Your task to perform on an android device: Go to Yahoo.com Image 0: 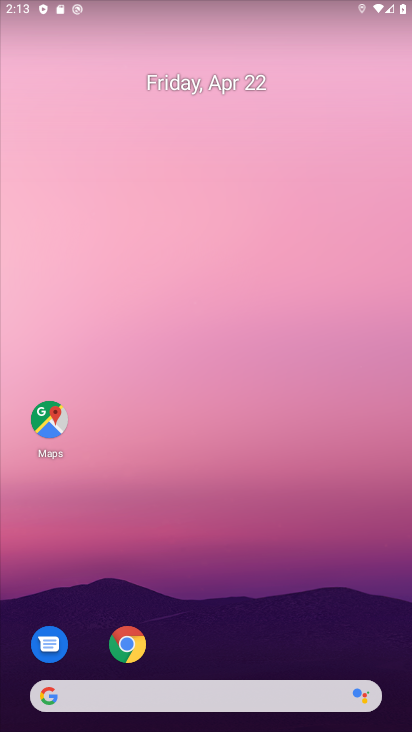
Step 0: drag from (267, 617) to (219, 146)
Your task to perform on an android device: Go to Yahoo.com Image 1: 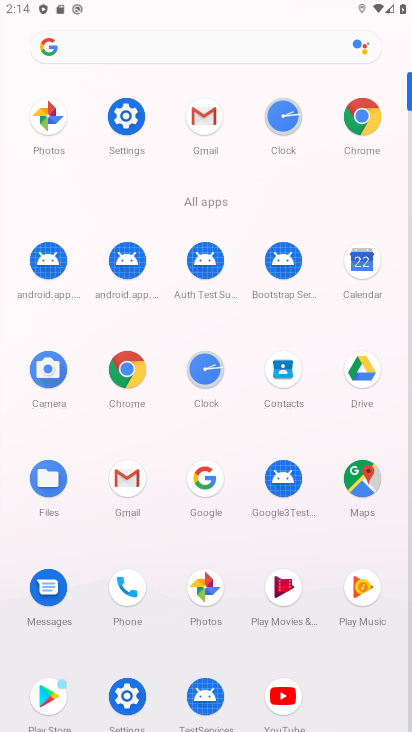
Step 1: click (363, 143)
Your task to perform on an android device: Go to Yahoo.com Image 2: 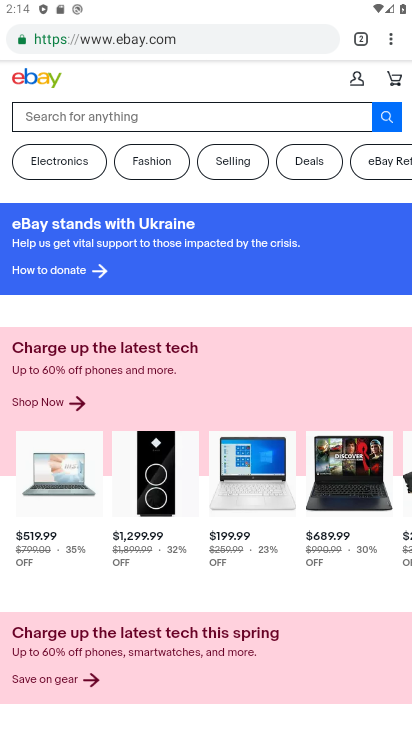
Step 2: click (364, 39)
Your task to perform on an android device: Go to Yahoo.com Image 3: 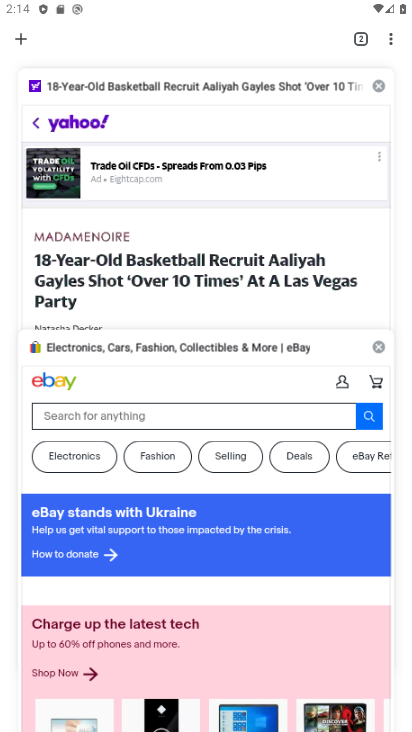
Step 3: click (23, 42)
Your task to perform on an android device: Go to Yahoo.com Image 4: 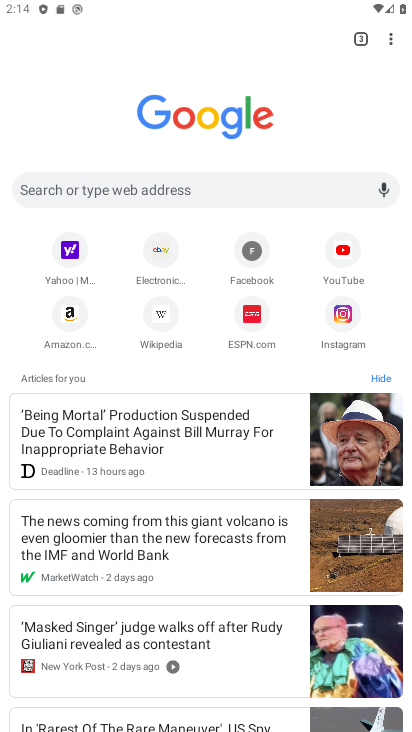
Step 4: click (66, 252)
Your task to perform on an android device: Go to Yahoo.com Image 5: 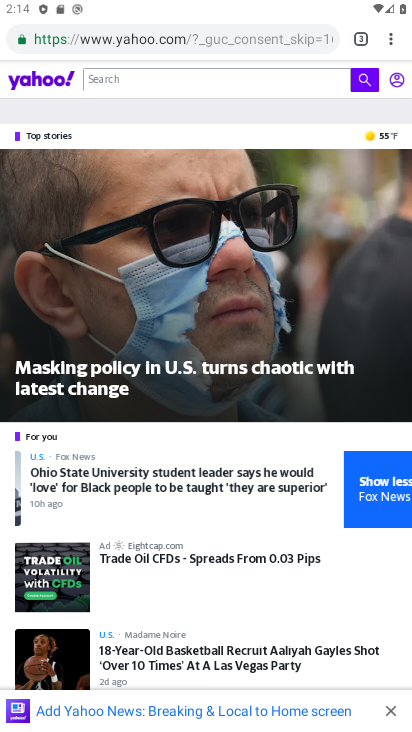
Step 5: task complete